Your task to perform on an android device: delete location history Image 0: 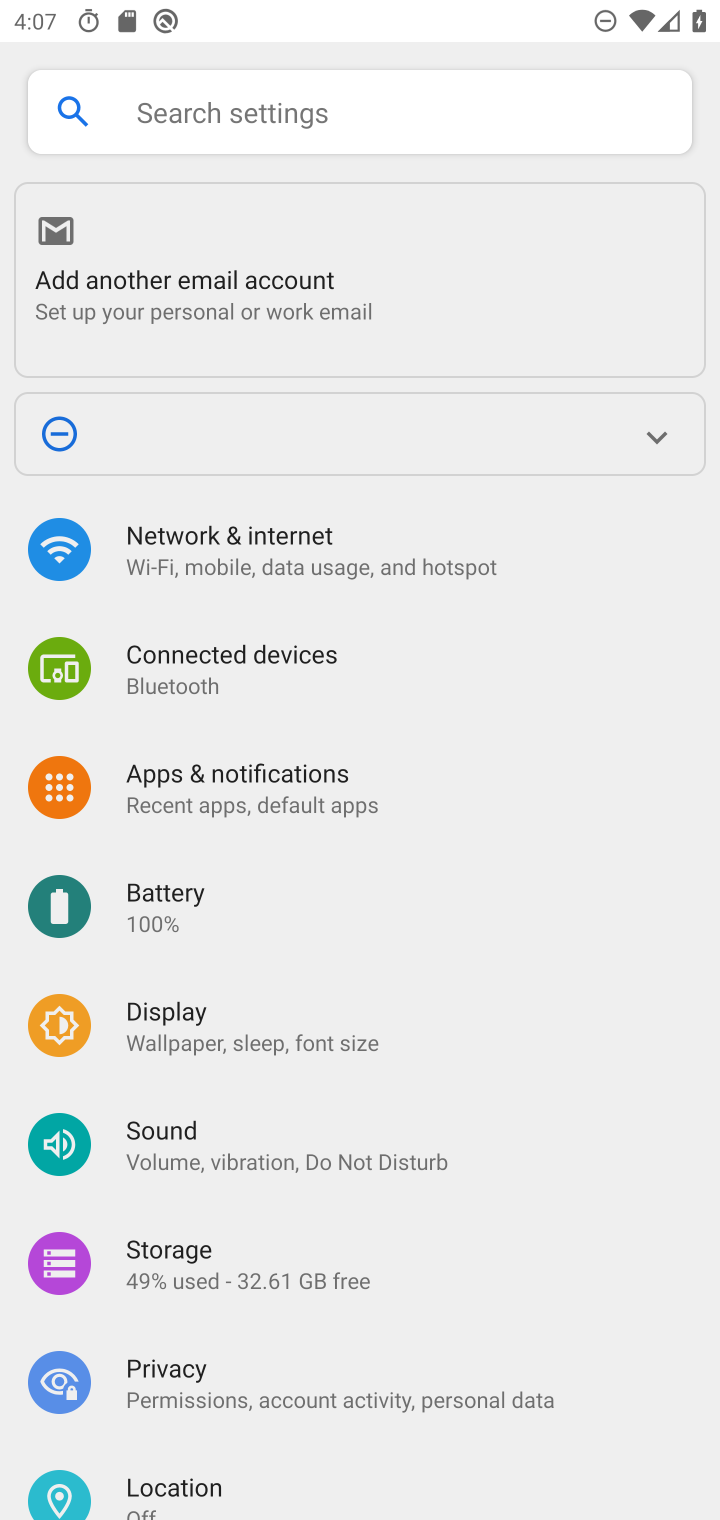
Step 0: press back button
Your task to perform on an android device: delete location history Image 1: 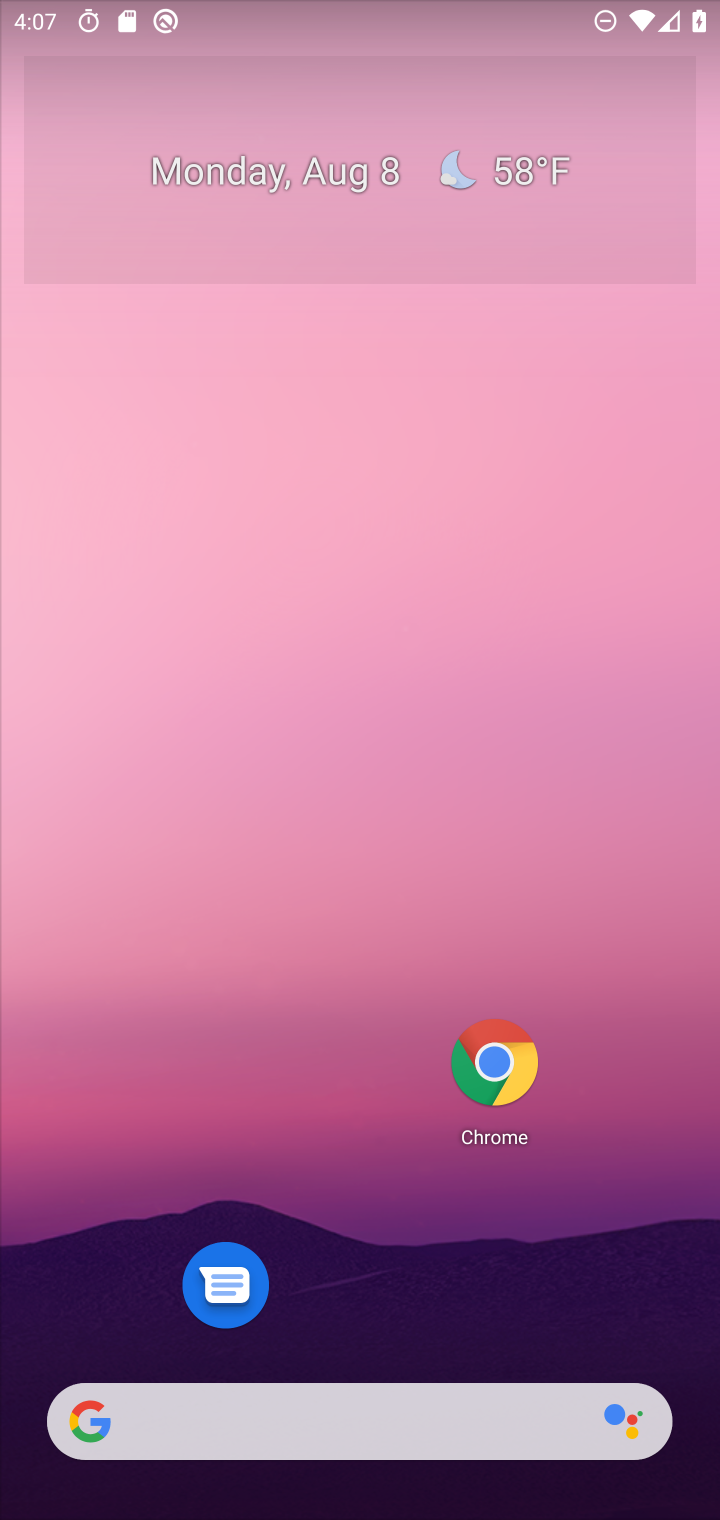
Step 1: drag from (356, 1145) to (224, 196)
Your task to perform on an android device: delete location history Image 2: 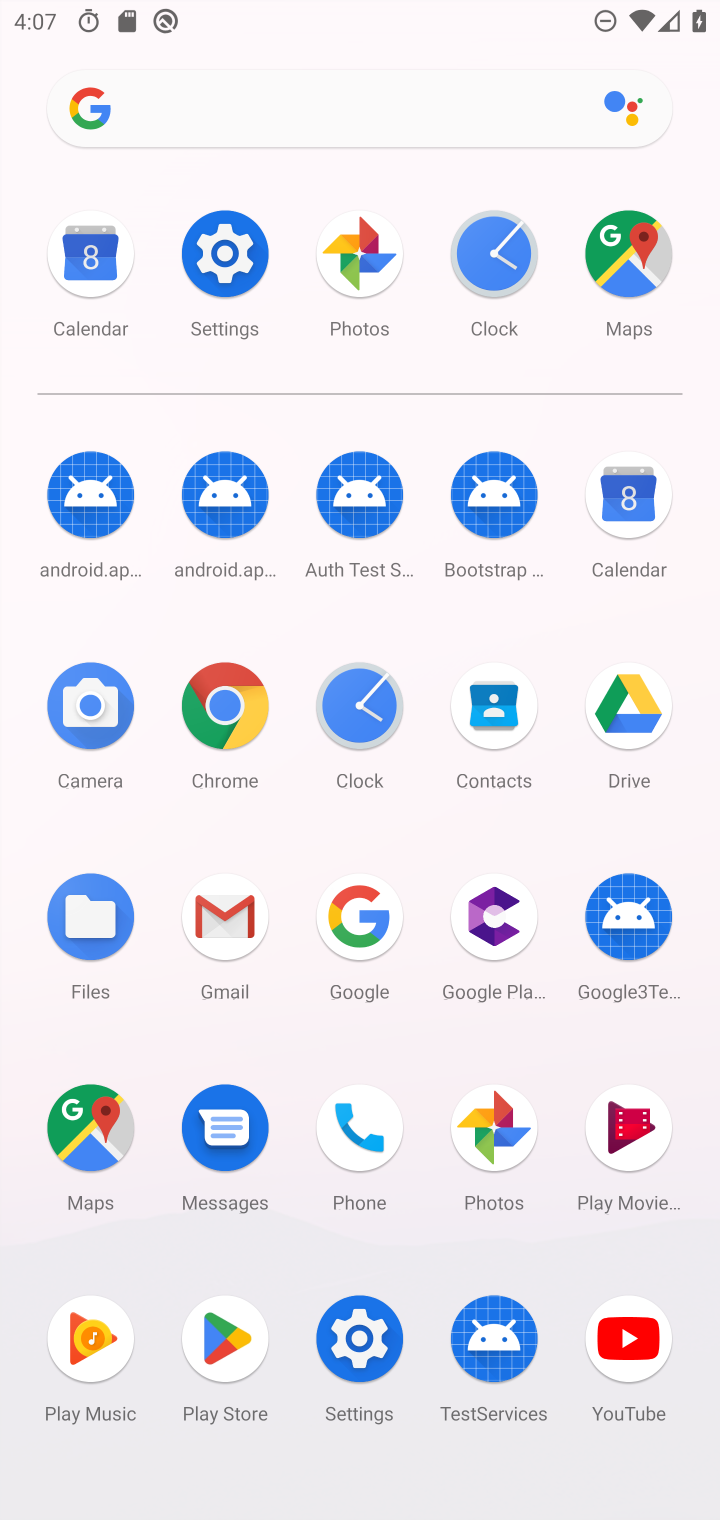
Step 2: click (619, 251)
Your task to perform on an android device: delete location history Image 3: 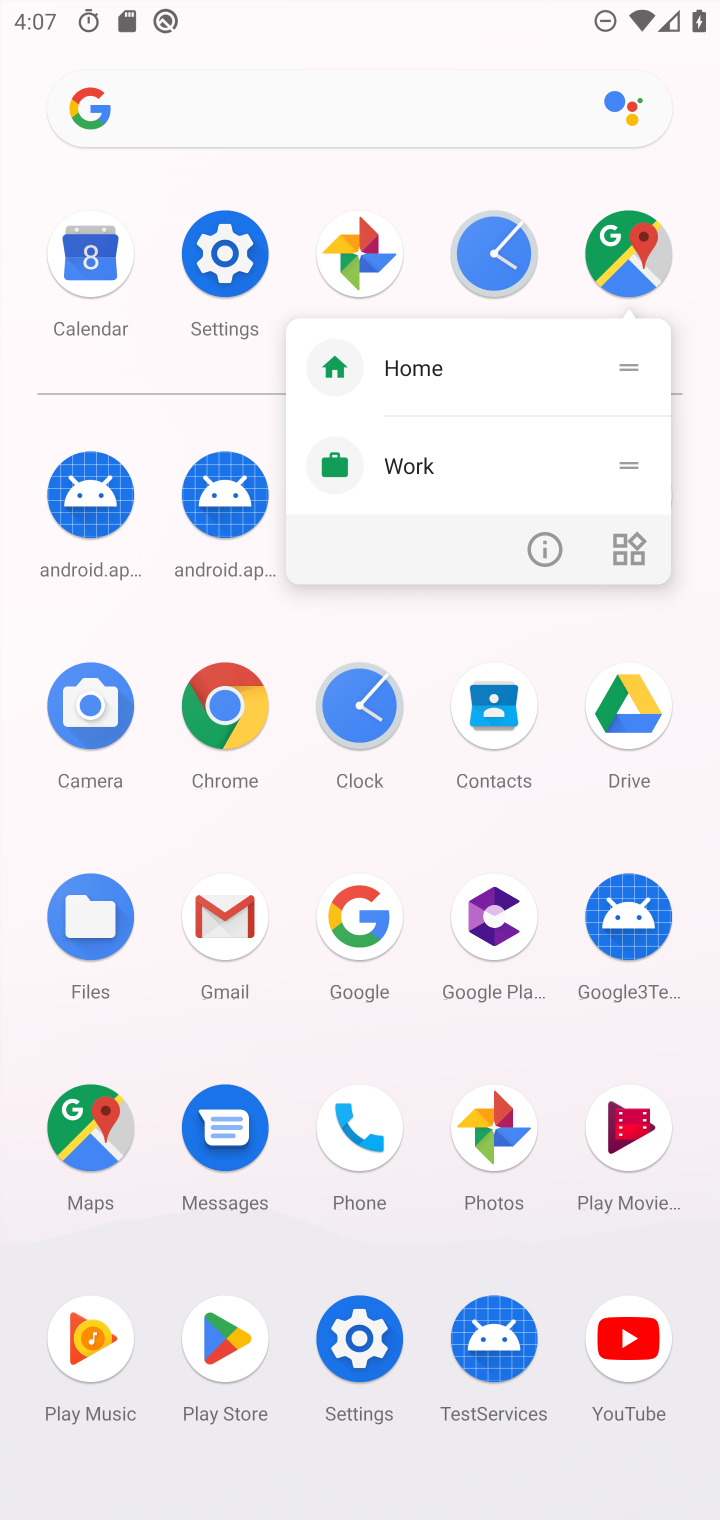
Step 3: click (636, 248)
Your task to perform on an android device: delete location history Image 4: 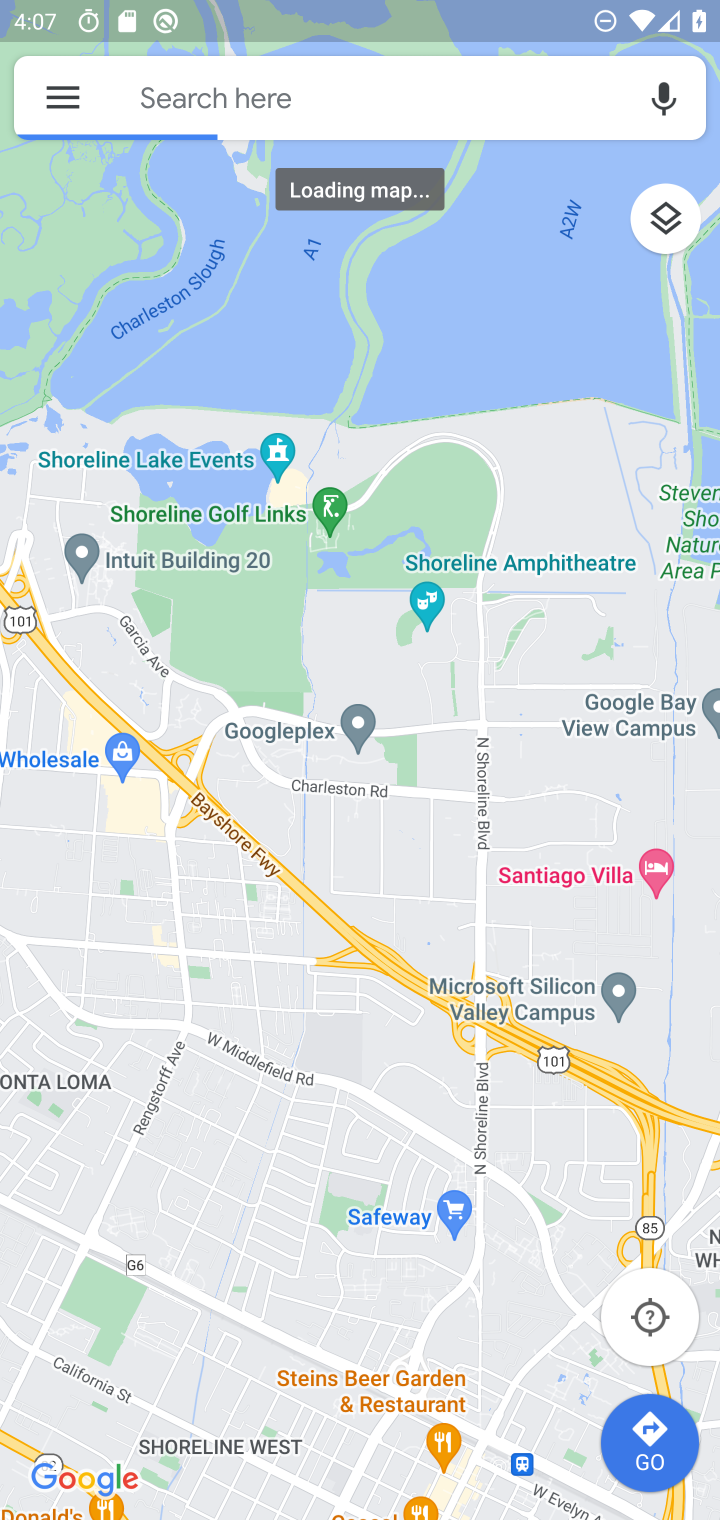
Step 4: click (79, 73)
Your task to perform on an android device: delete location history Image 5: 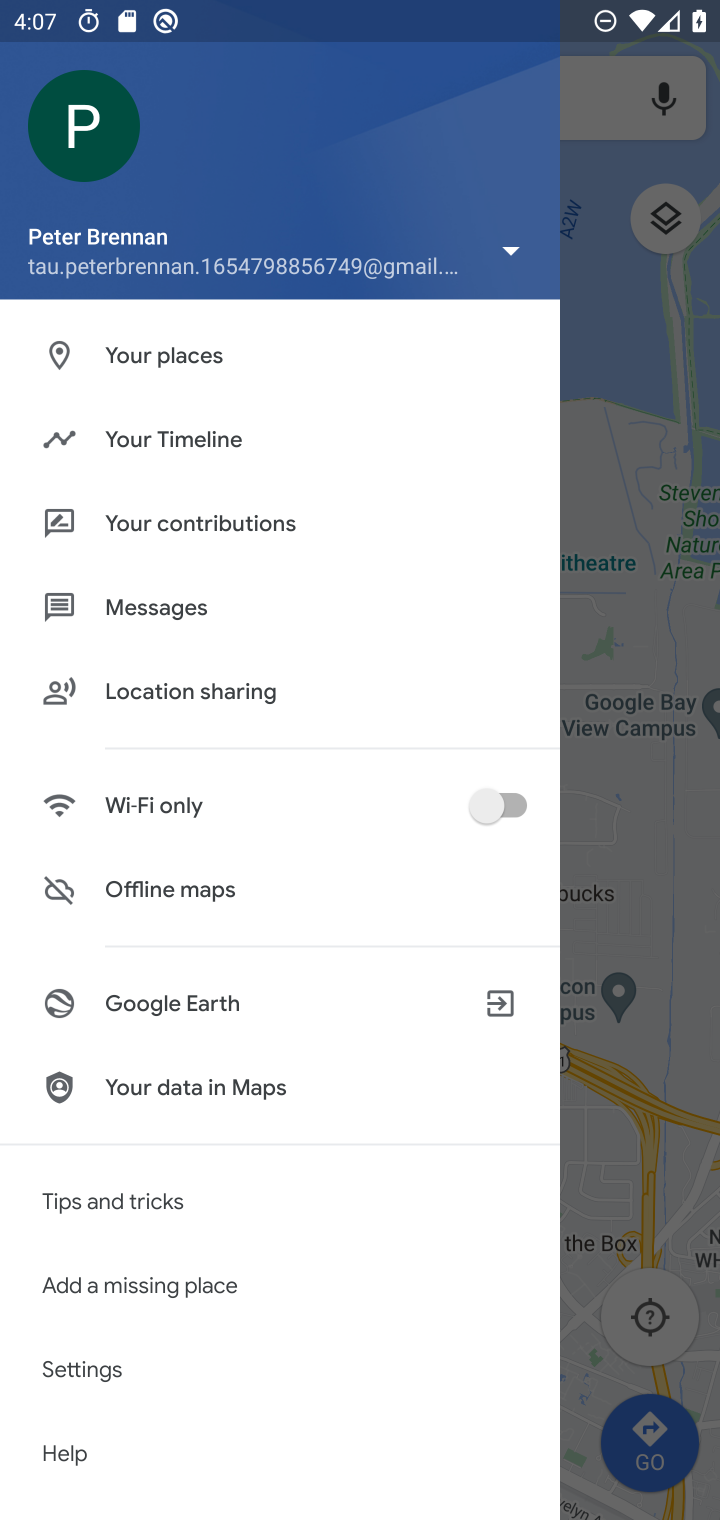
Step 5: click (234, 432)
Your task to perform on an android device: delete location history Image 6: 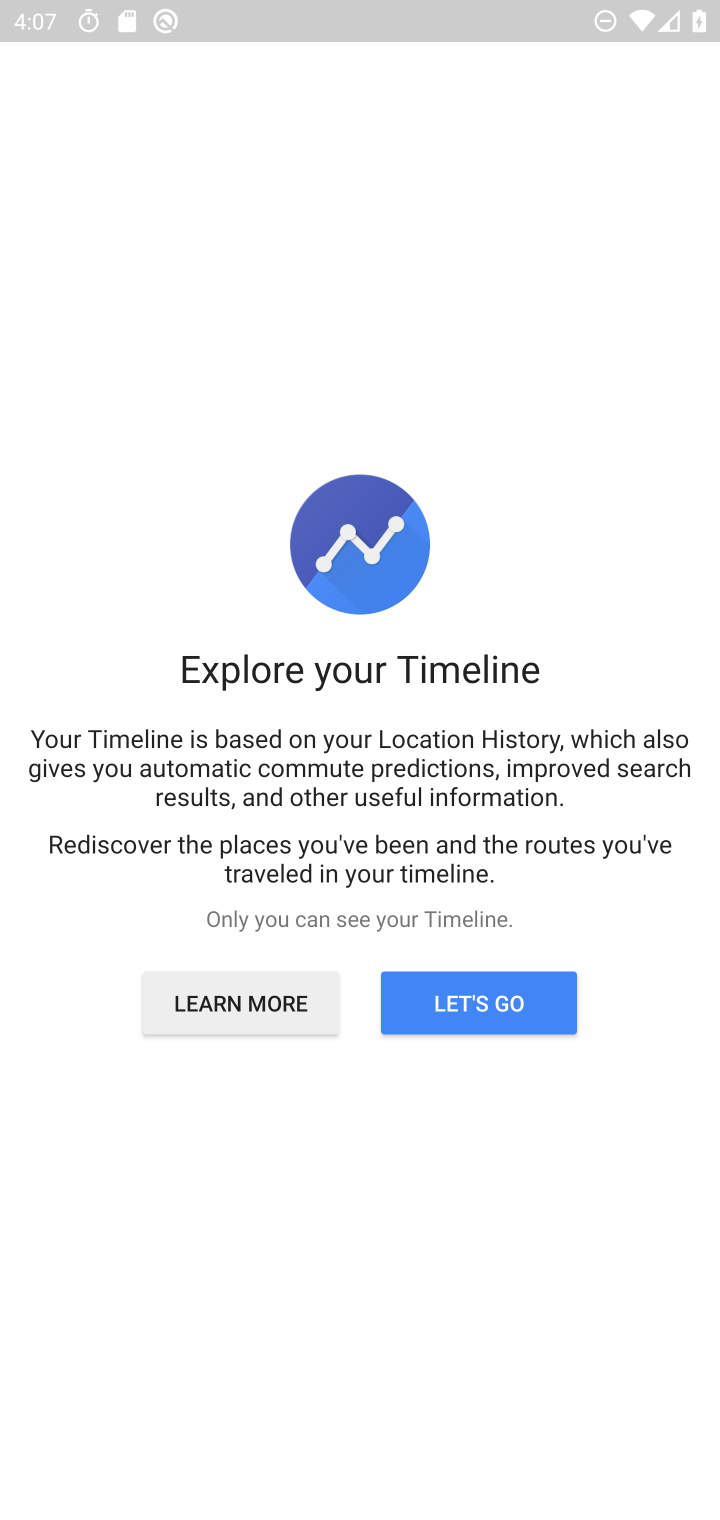
Step 6: click (551, 1003)
Your task to perform on an android device: delete location history Image 7: 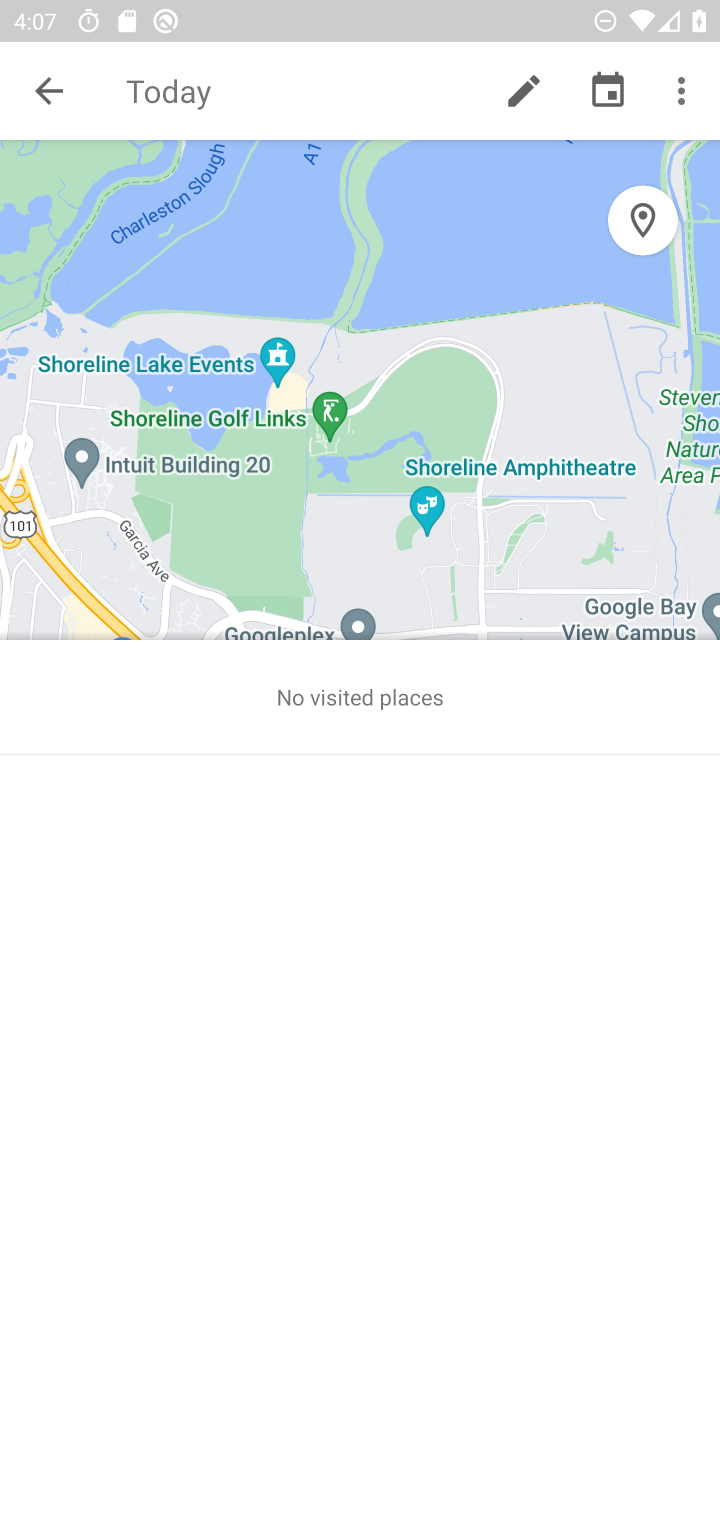
Step 7: click (672, 100)
Your task to perform on an android device: delete location history Image 8: 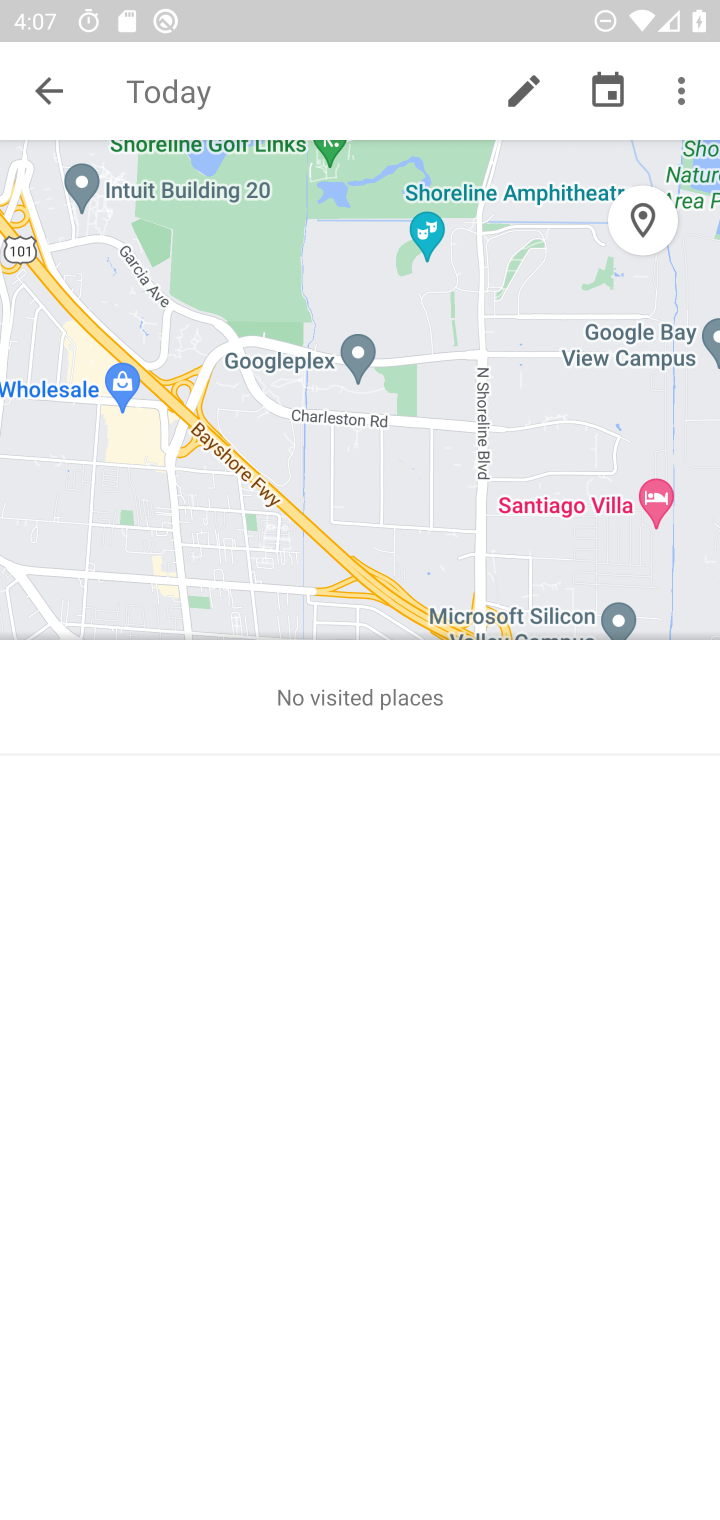
Step 8: click (679, 85)
Your task to perform on an android device: delete location history Image 9: 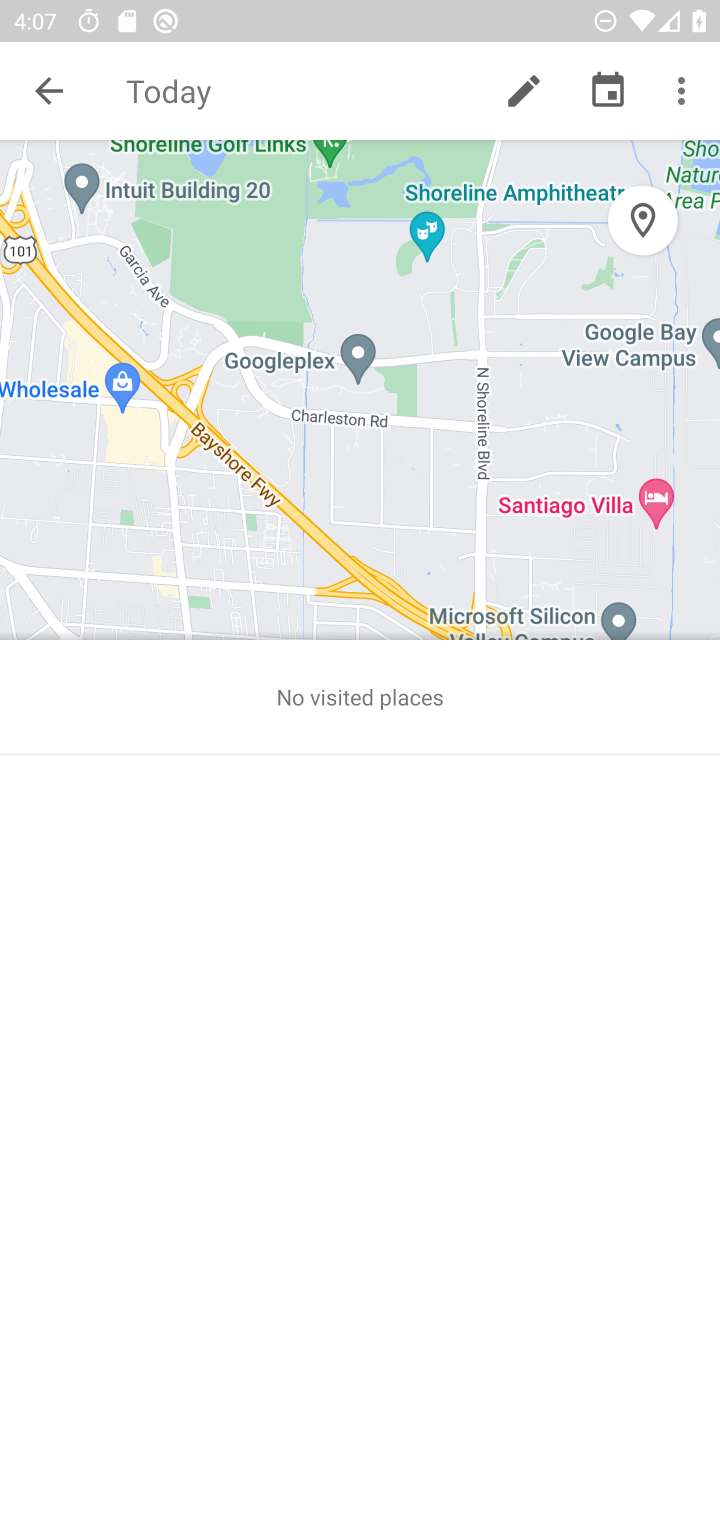
Step 9: click (680, 111)
Your task to perform on an android device: delete location history Image 10: 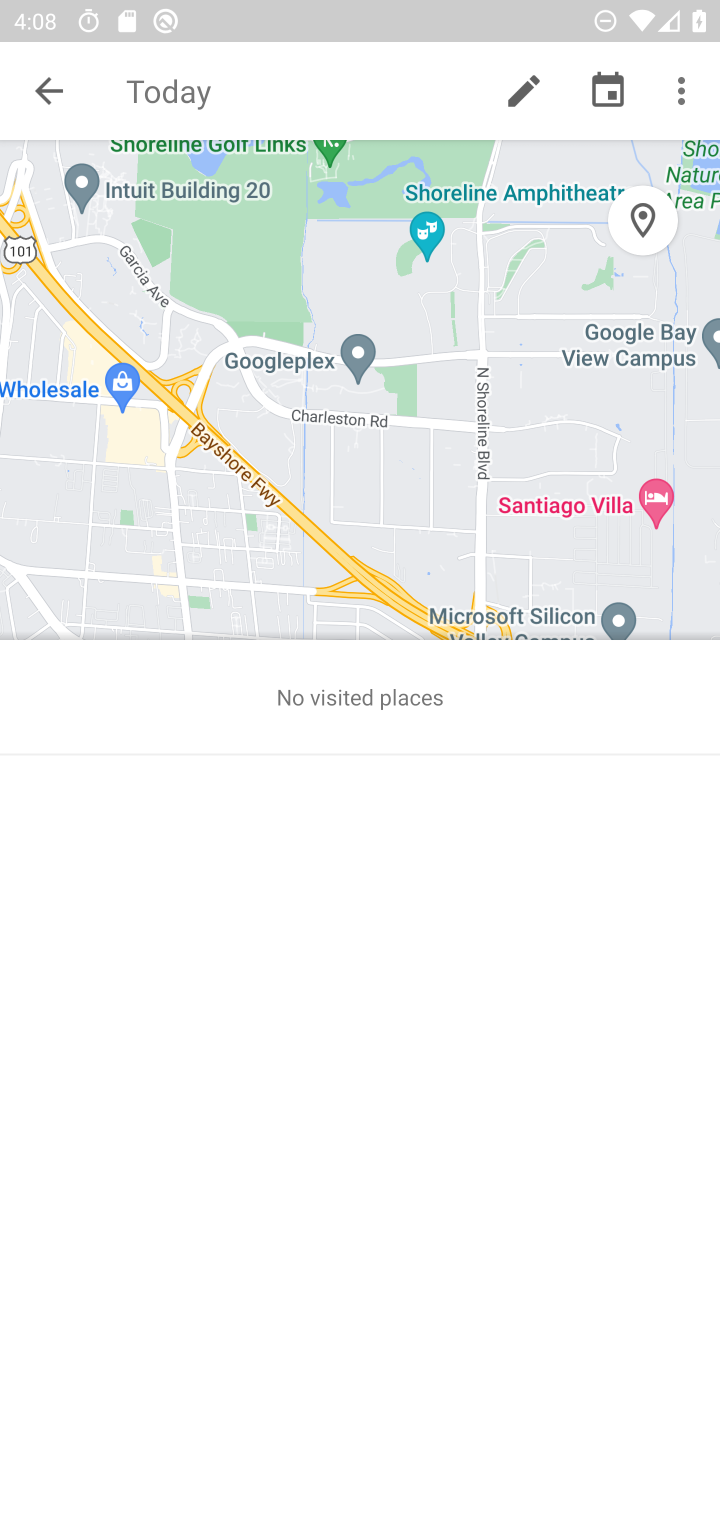
Step 10: click (696, 84)
Your task to perform on an android device: delete location history Image 11: 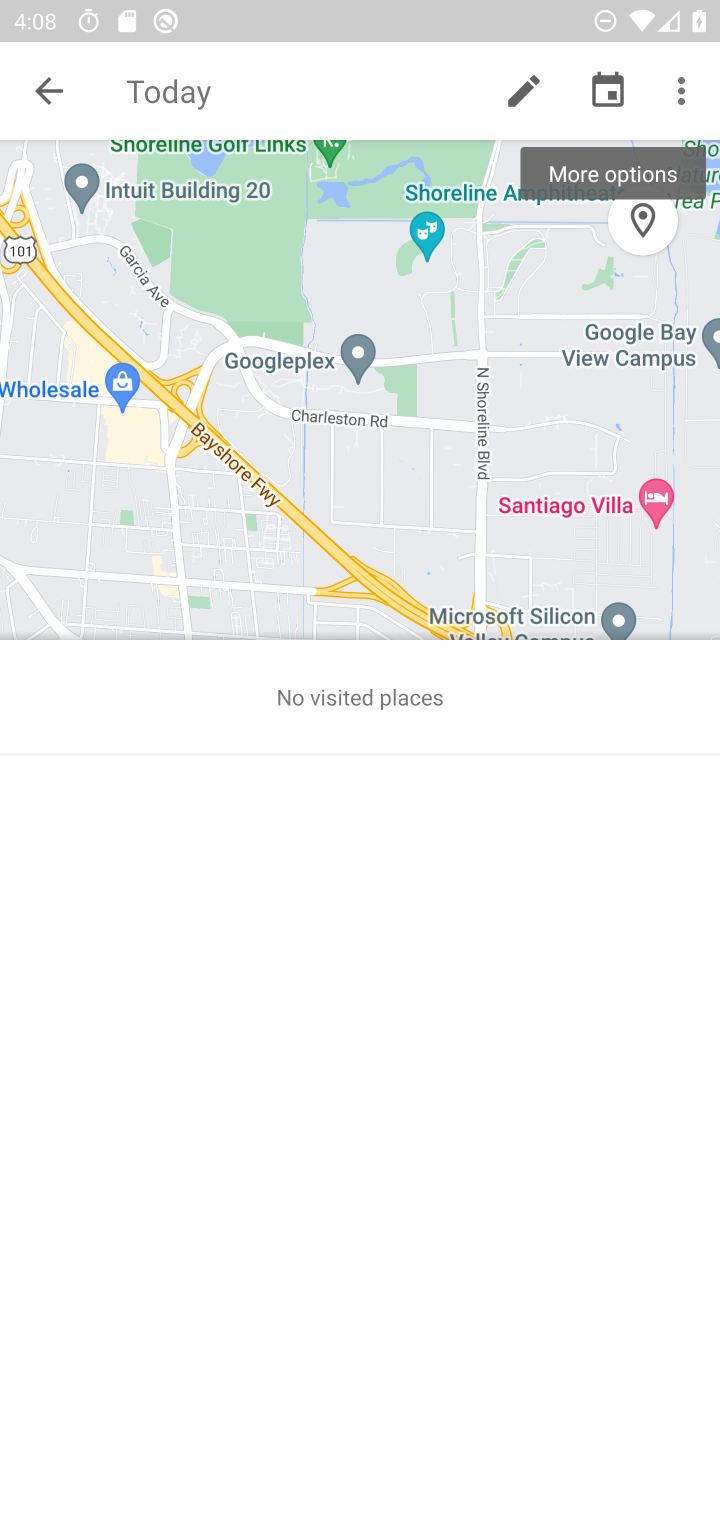
Step 11: click (682, 70)
Your task to perform on an android device: delete location history Image 12: 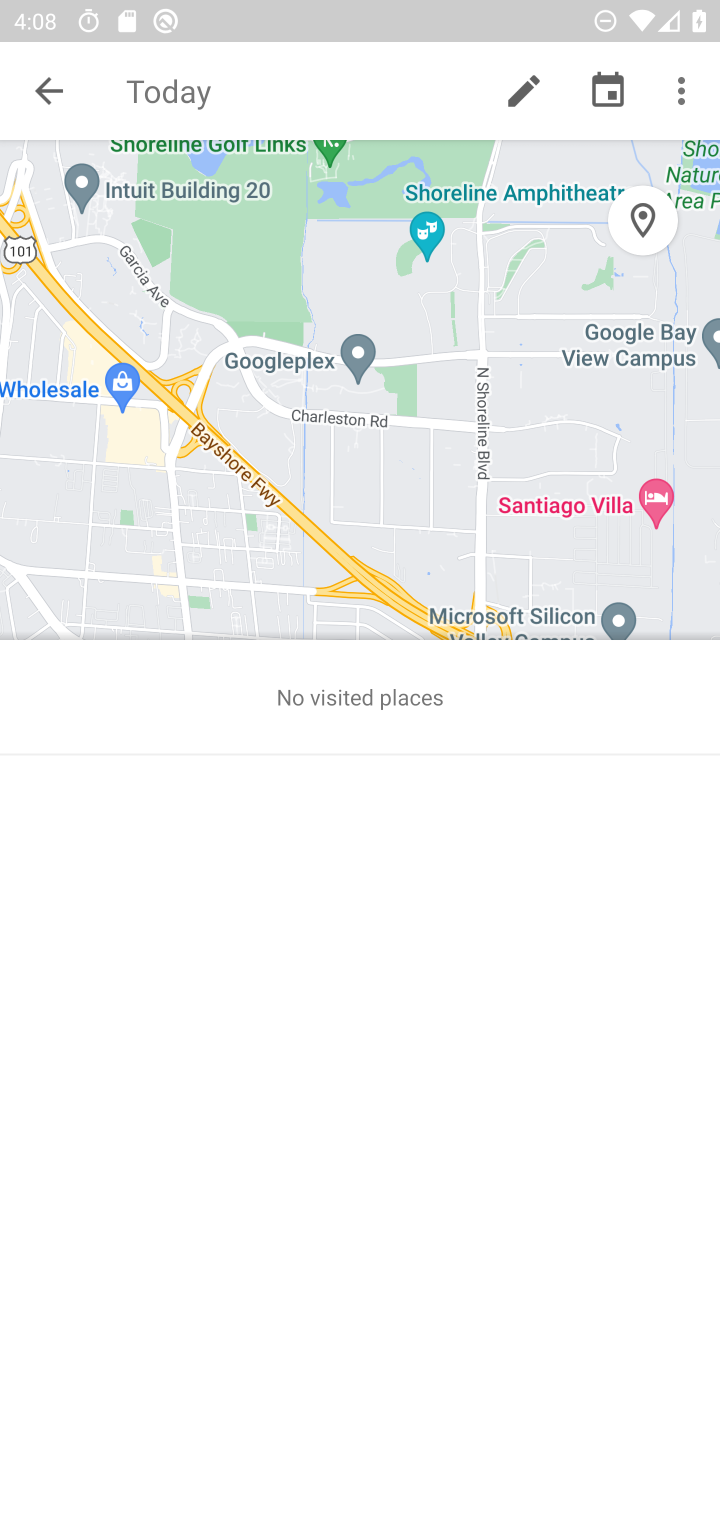
Step 12: click (683, 96)
Your task to perform on an android device: delete location history Image 13: 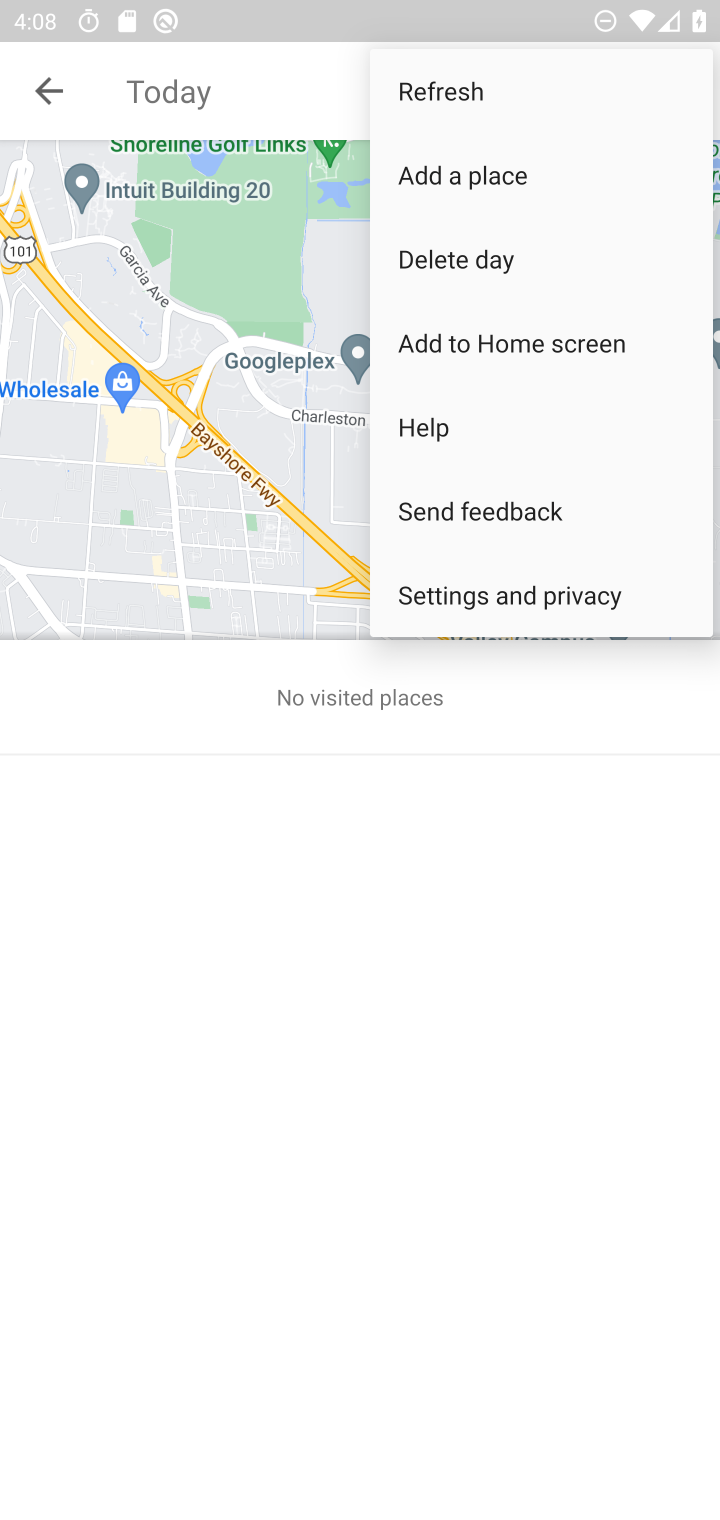
Step 13: click (520, 584)
Your task to perform on an android device: delete location history Image 14: 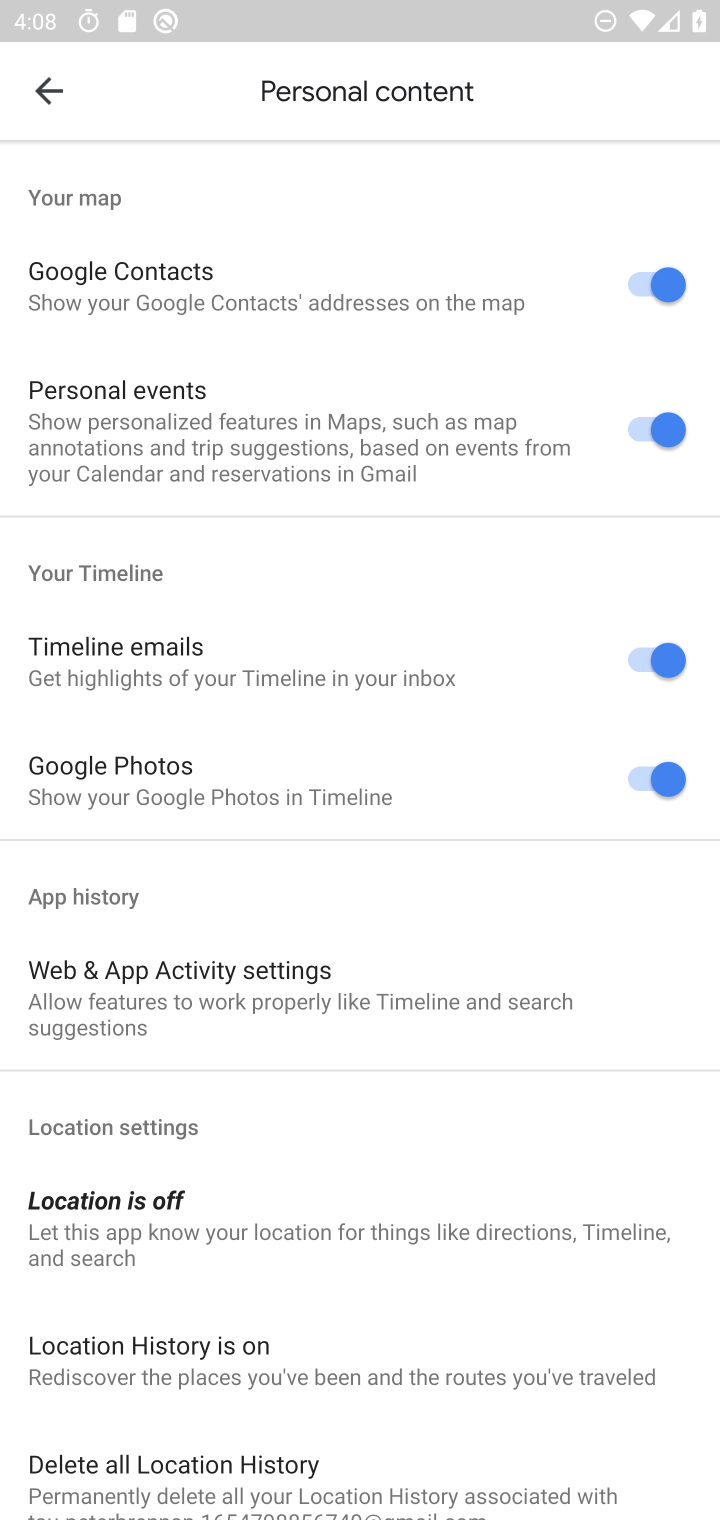
Step 14: click (176, 1462)
Your task to perform on an android device: delete location history Image 15: 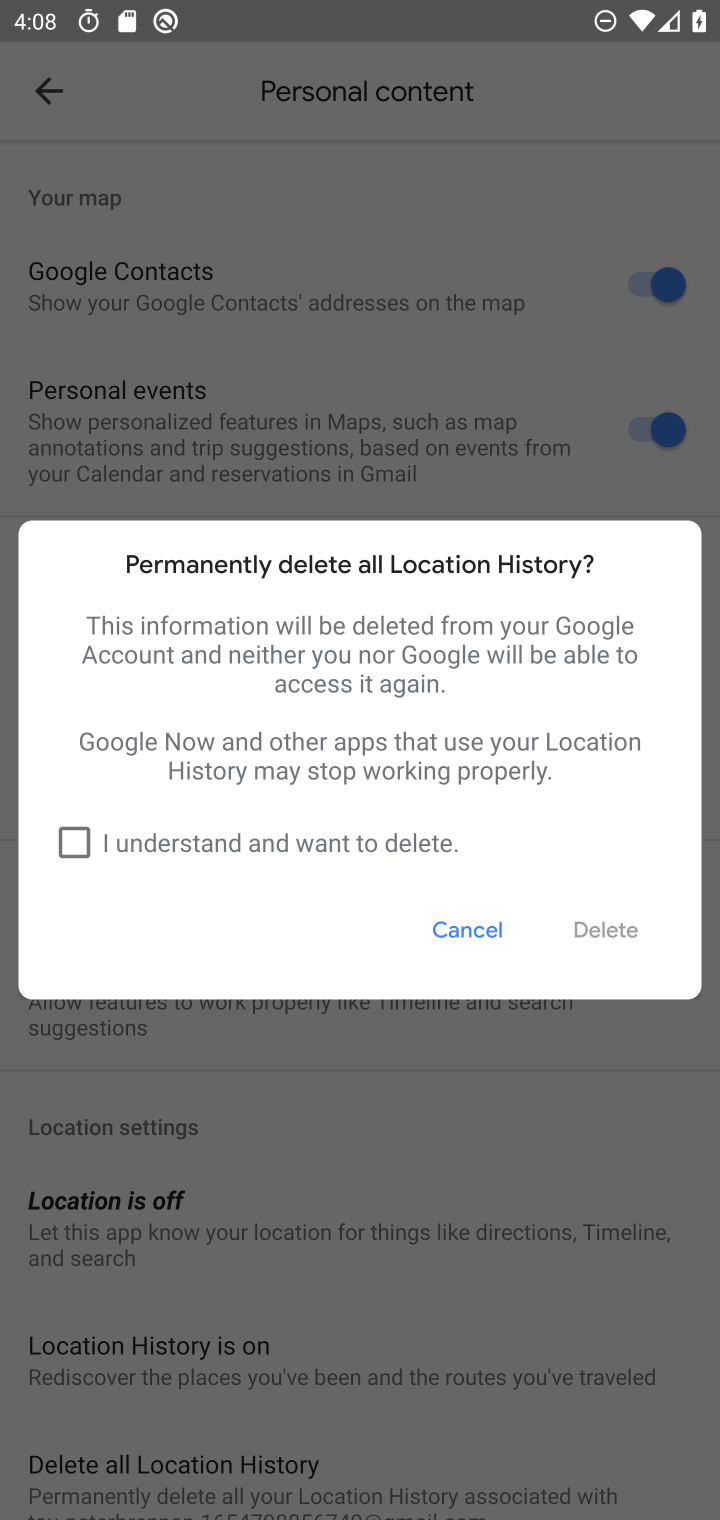
Step 15: click (102, 842)
Your task to perform on an android device: delete location history Image 16: 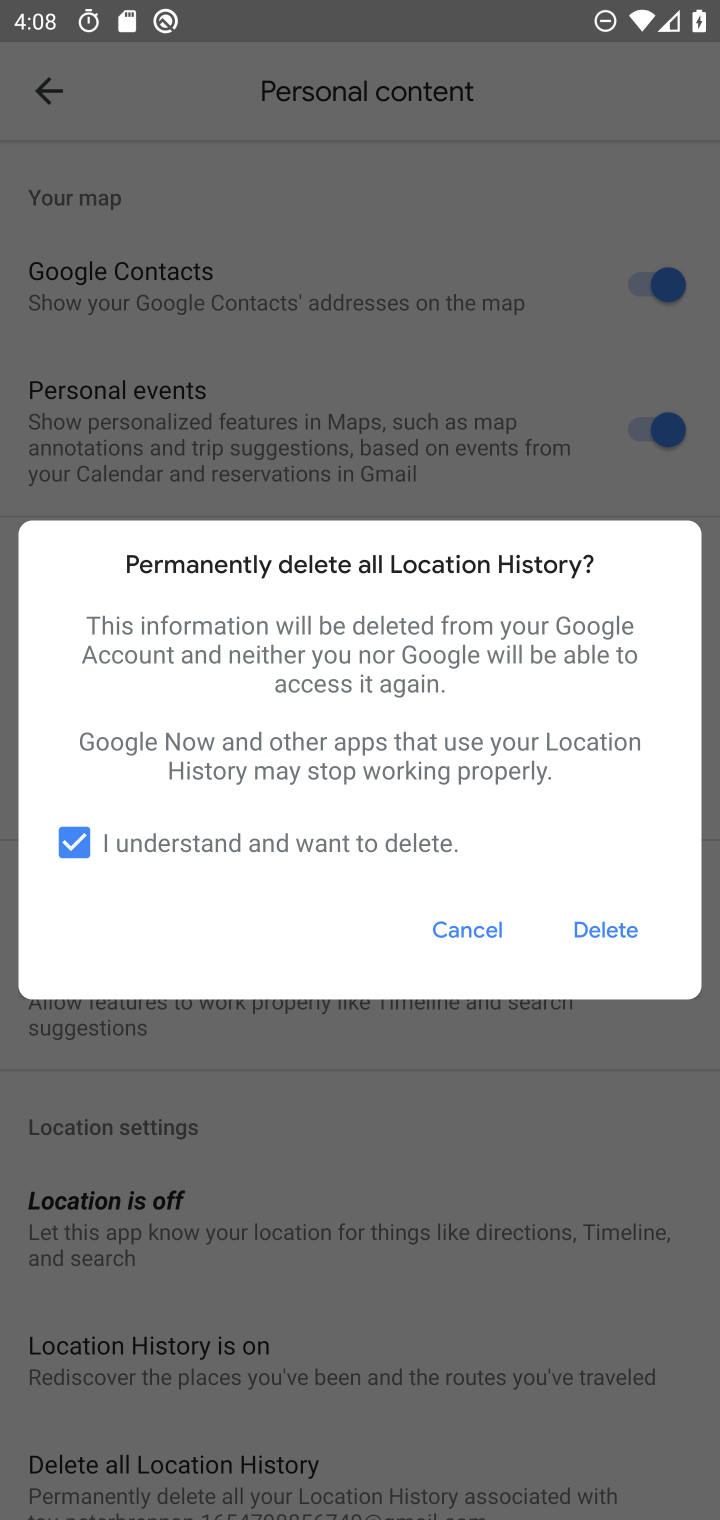
Step 16: click (596, 930)
Your task to perform on an android device: delete location history Image 17: 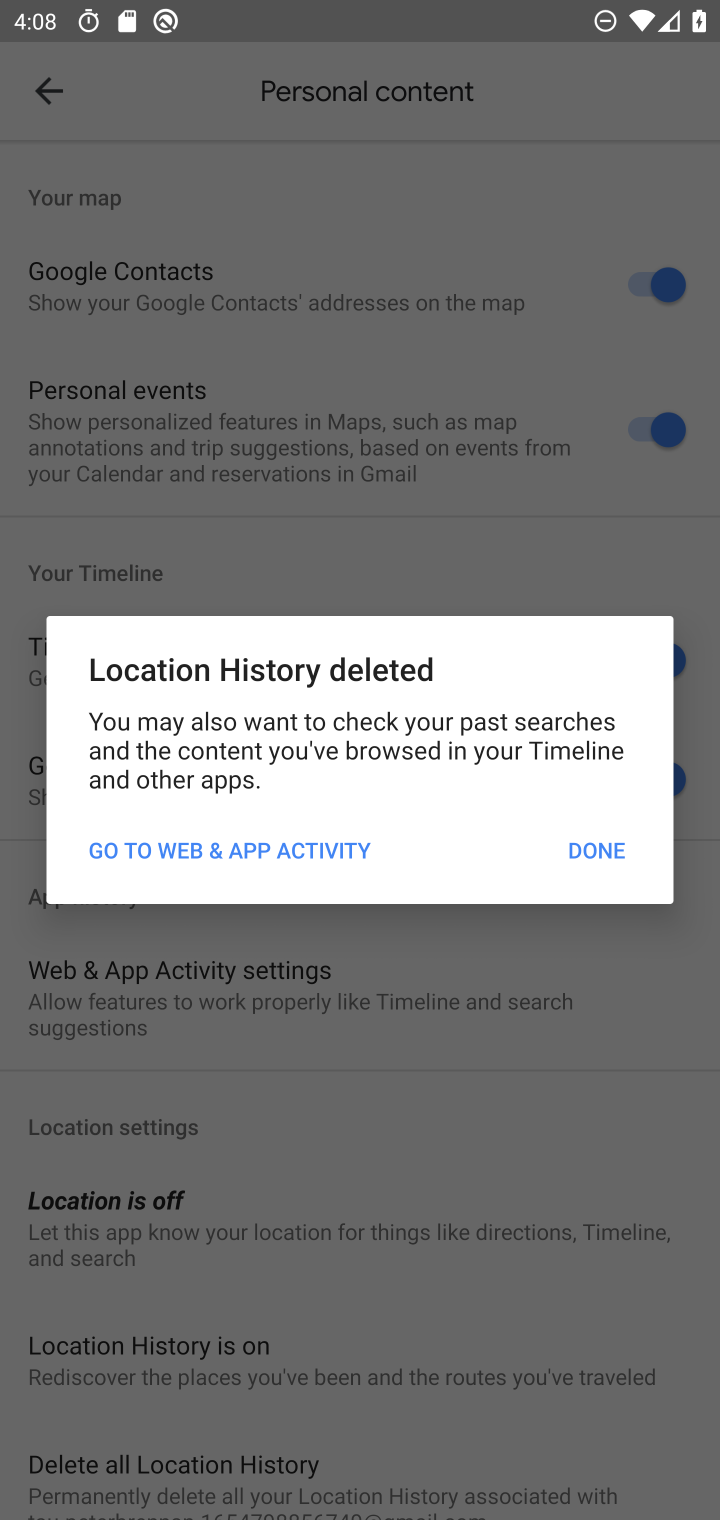
Step 17: click (591, 833)
Your task to perform on an android device: delete location history Image 18: 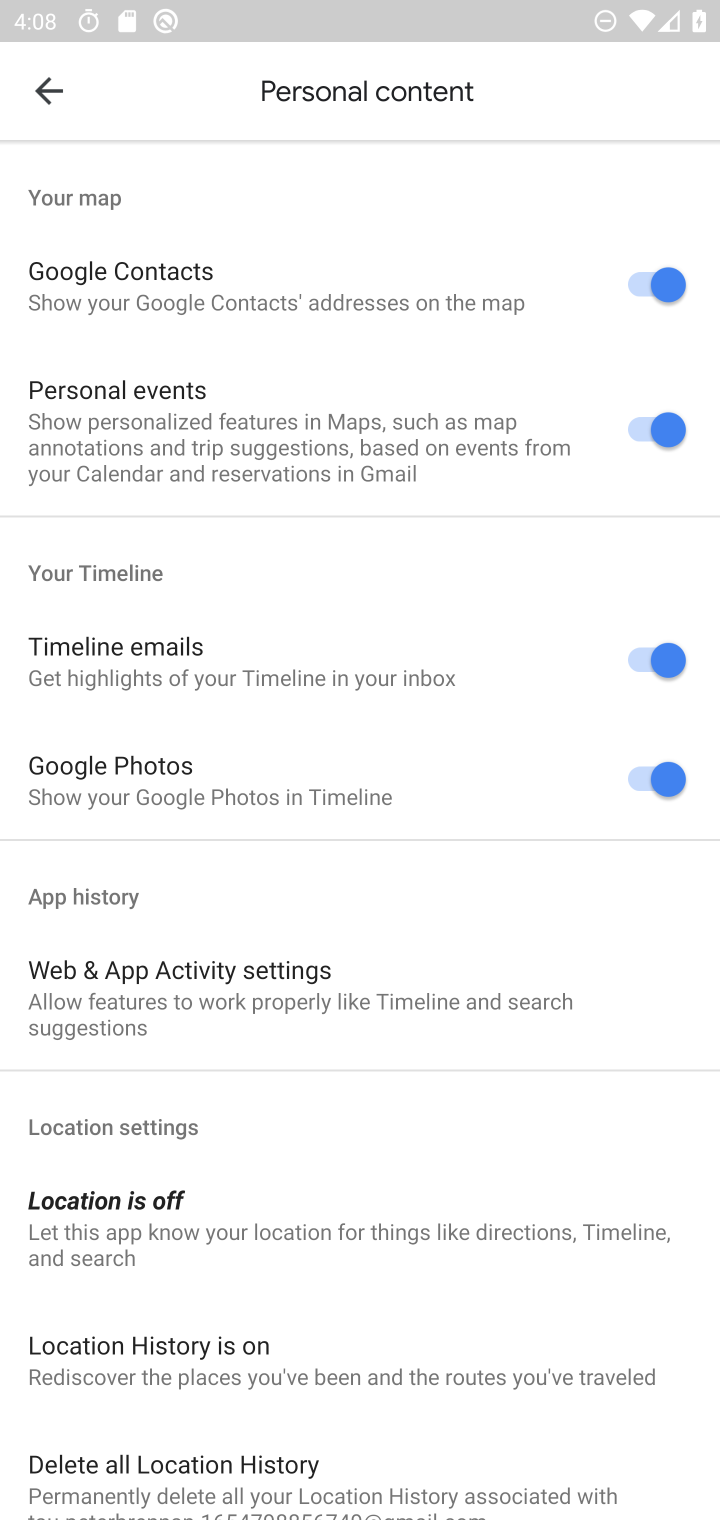
Step 18: task complete